Your task to perform on an android device: Open eBay Image 0: 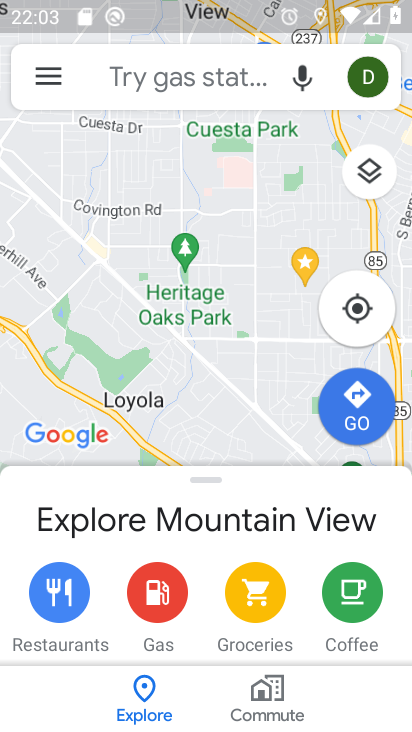
Step 0: press home button
Your task to perform on an android device: Open eBay Image 1: 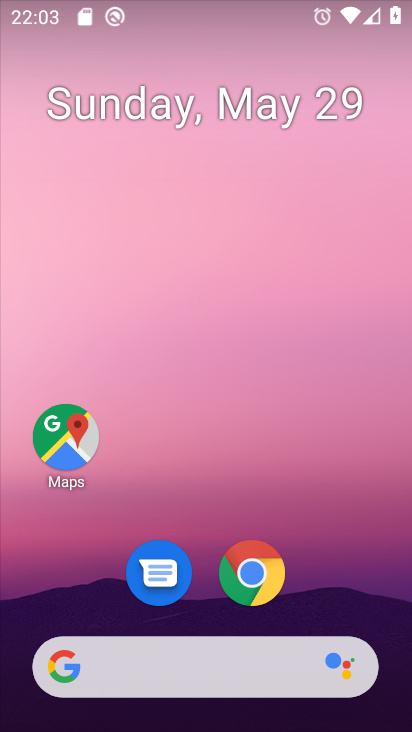
Step 1: click (232, 662)
Your task to perform on an android device: Open eBay Image 2: 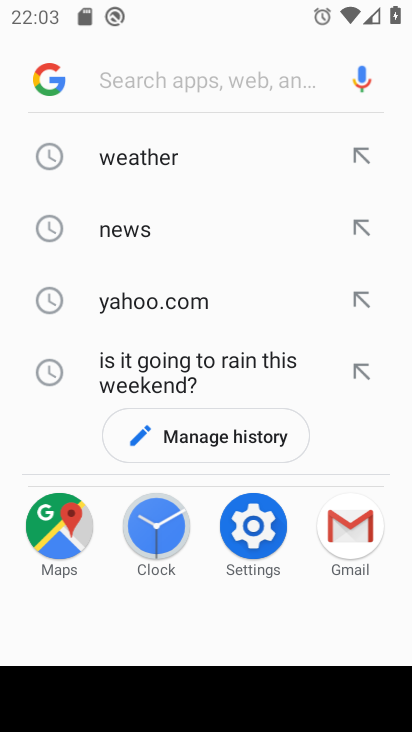
Step 2: type "ebay"
Your task to perform on an android device: Open eBay Image 3: 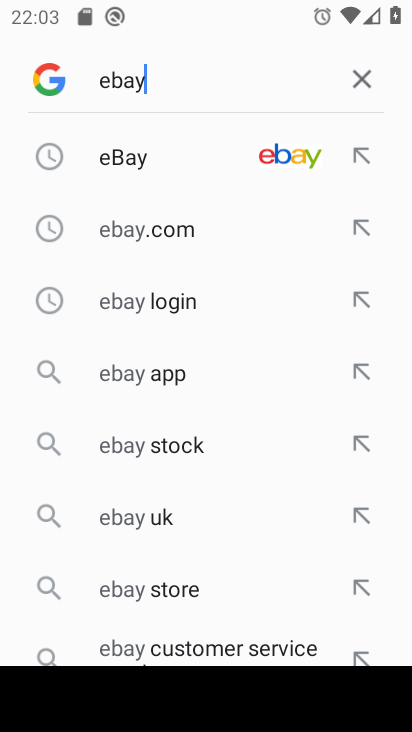
Step 3: click (129, 152)
Your task to perform on an android device: Open eBay Image 4: 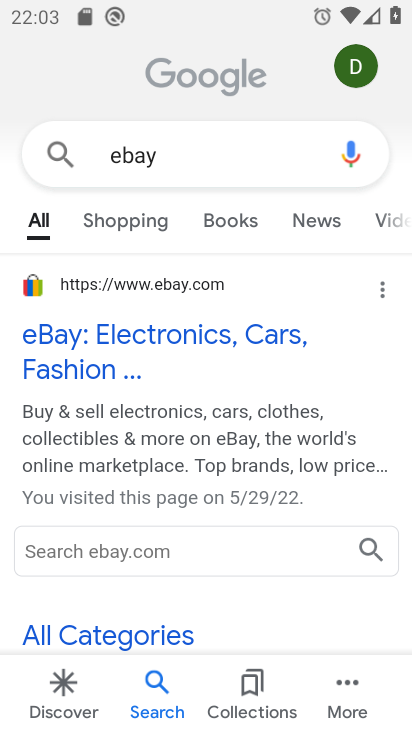
Step 4: click (61, 341)
Your task to perform on an android device: Open eBay Image 5: 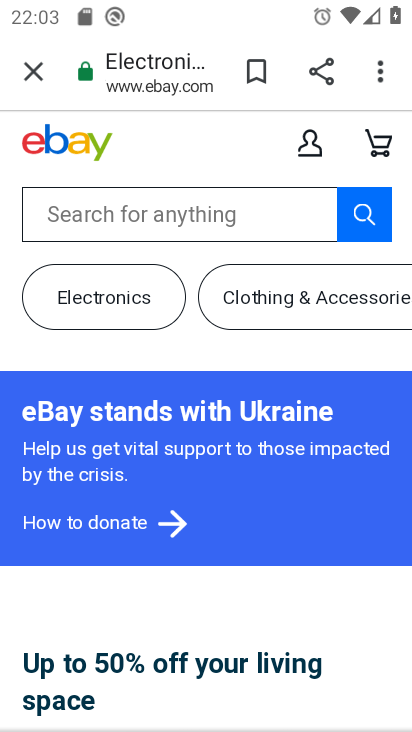
Step 5: task complete